Your task to perform on an android device: toggle pop-ups in chrome Image 0: 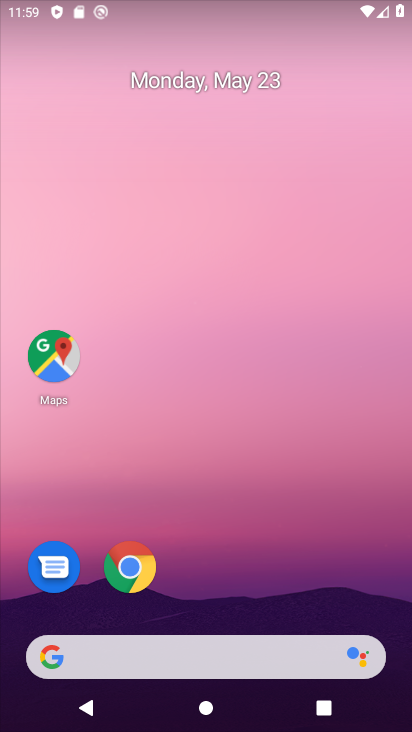
Step 0: click (127, 553)
Your task to perform on an android device: toggle pop-ups in chrome Image 1: 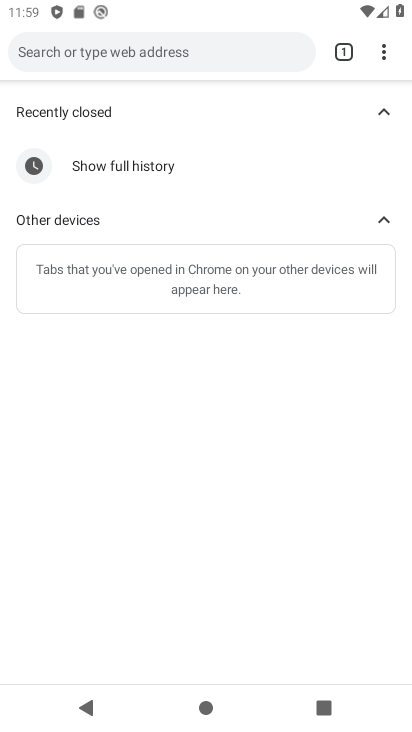
Step 1: click (393, 55)
Your task to perform on an android device: toggle pop-ups in chrome Image 2: 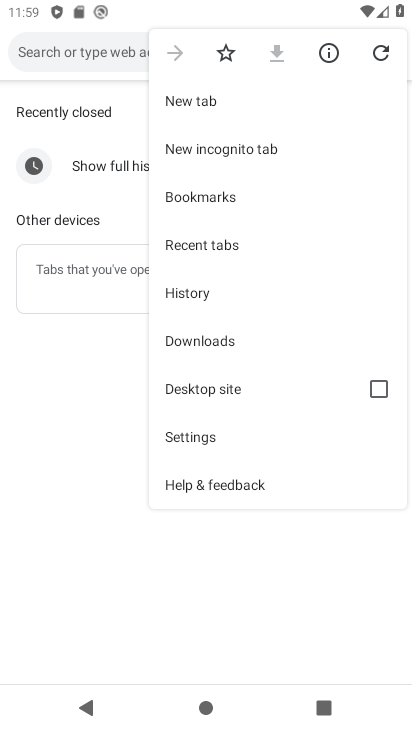
Step 2: click (237, 443)
Your task to perform on an android device: toggle pop-ups in chrome Image 3: 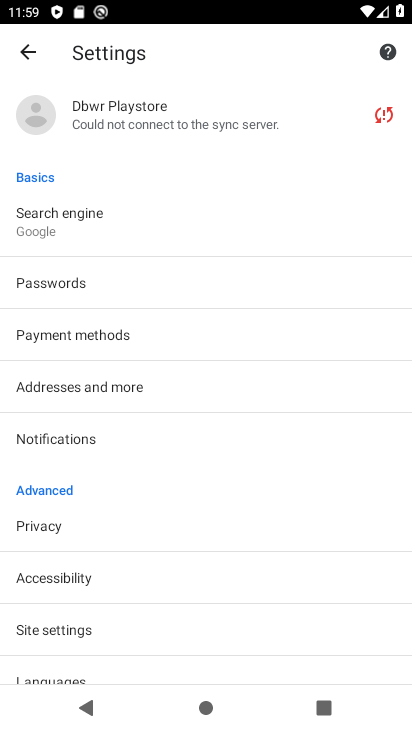
Step 3: drag from (165, 631) to (149, 96)
Your task to perform on an android device: toggle pop-ups in chrome Image 4: 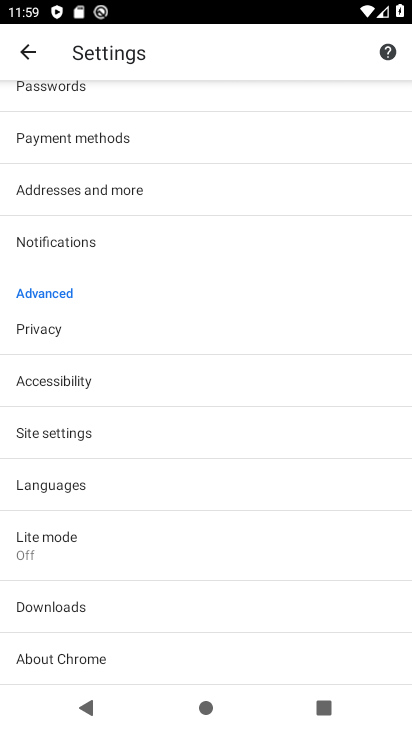
Step 4: click (101, 440)
Your task to perform on an android device: toggle pop-ups in chrome Image 5: 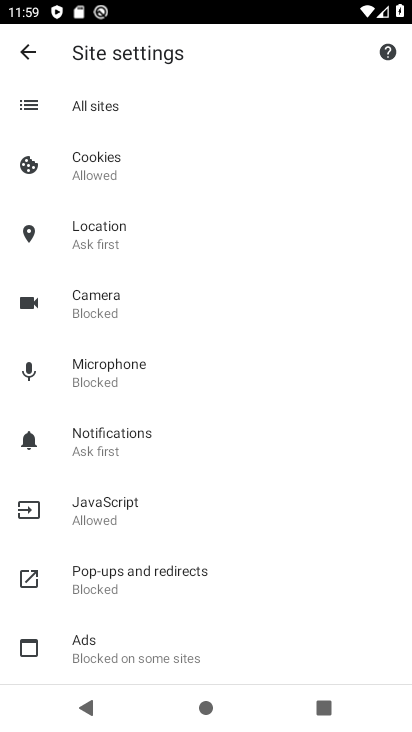
Step 5: click (149, 585)
Your task to perform on an android device: toggle pop-ups in chrome Image 6: 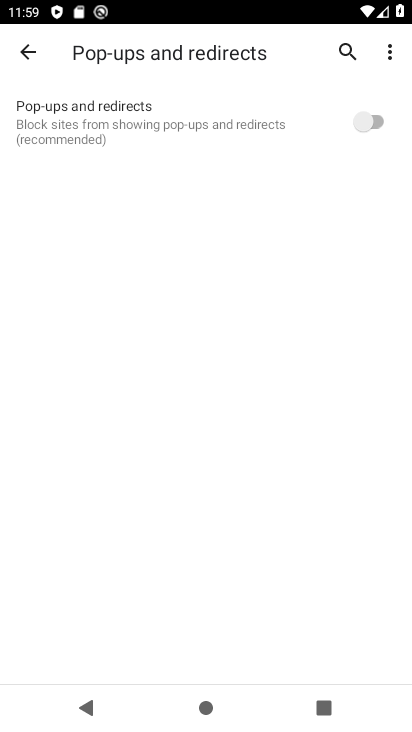
Step 6: click (376, 128)
Your task to perform on an android device: toggle pop-ups in chrome Image 7: 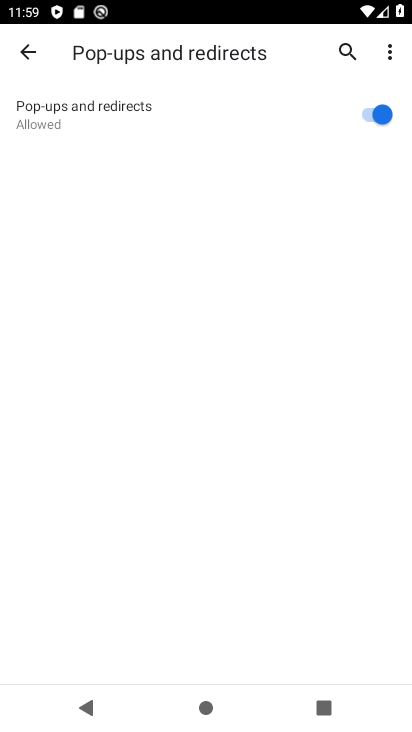
Step 7: task complete